Your task to perform on an android device: clear history in the chrome app Image 0: 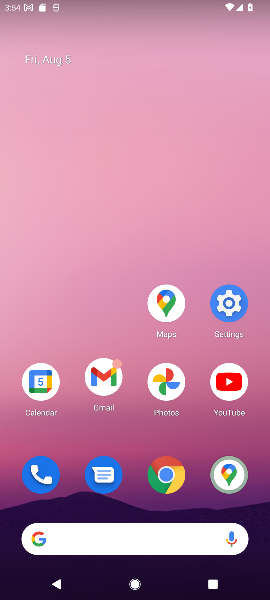
Step 0: click (168, 473)
Your task to perform on an android device: clear history in the chrome app Image 1: 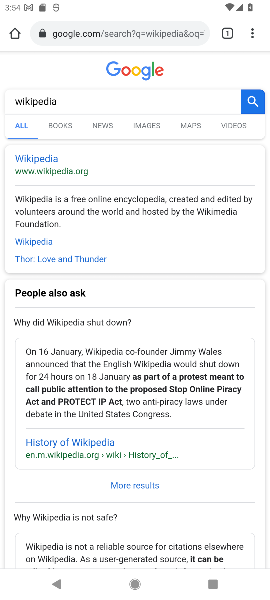
Step 1: click (252, 33)
Your task to perform on an android device: clear history in the chrome app Image 2: 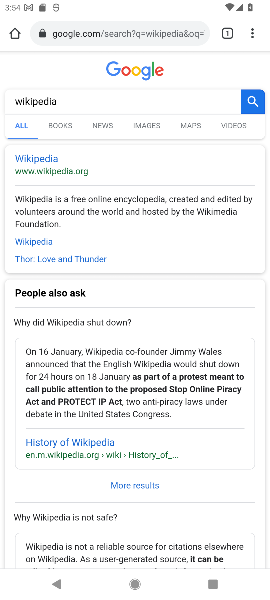
Step 2: click (252, 35)
Your task to perform on an android device: clear history in the chrome app Image 3: 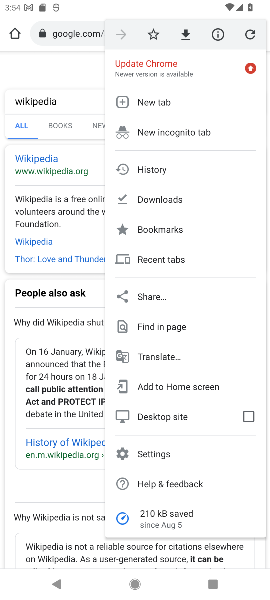
Step 3: click (152, 171)
Your task to perform on an android device: clear history in the chrome app Image 4: 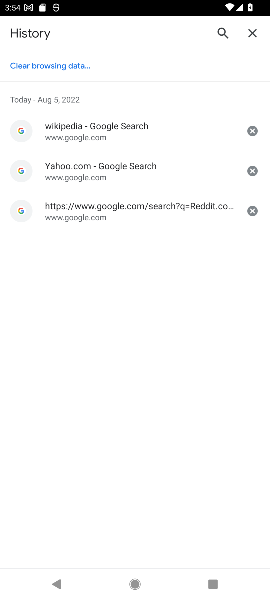
Step 4: click (55, 59)
Your task to perform on an android device: clear history in the chrome app Image 5: 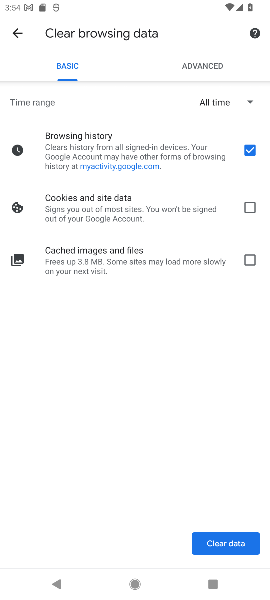
Step 5: click (228, 544)
Your task to perform on an android device: clear history in the chrome app Image 6: 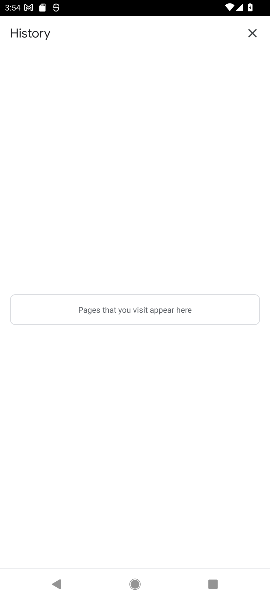
Step 6: task complete